Your task to perform on an android device: Open the map Image 0: 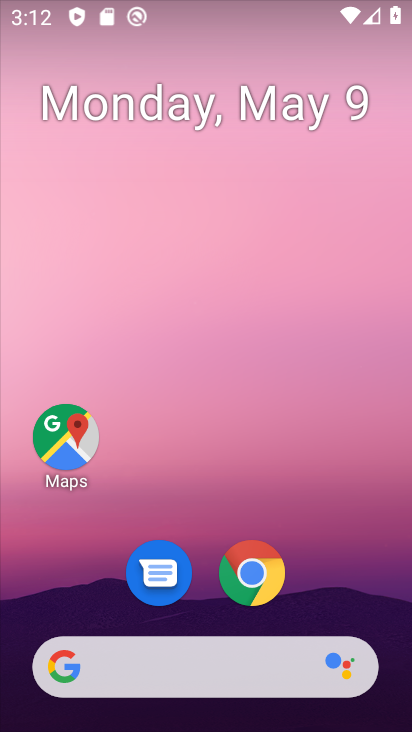
Step 0: click (62, 437)
Your task to perform on an android device: Open the map Image 1: 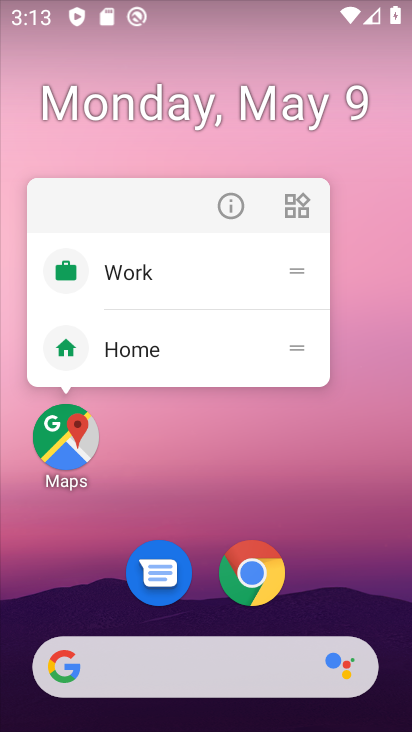
Step 1: click (62, 437)
Your task to perform on an android device: Open the map Image 2: 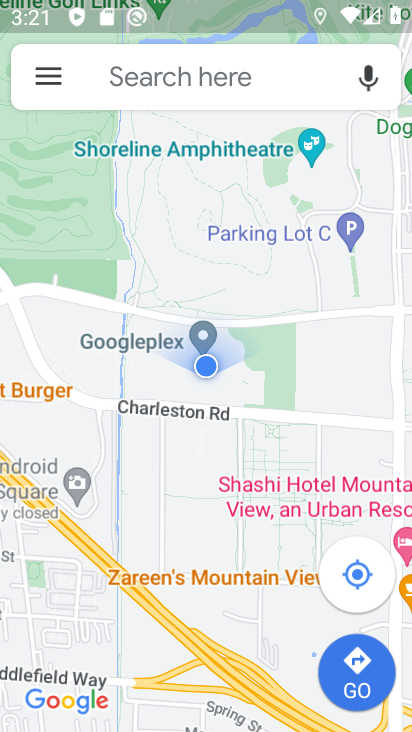
Step 2: task complete